Your task to perform on an android device: Open calendar and show me the third week of next month Image 0: 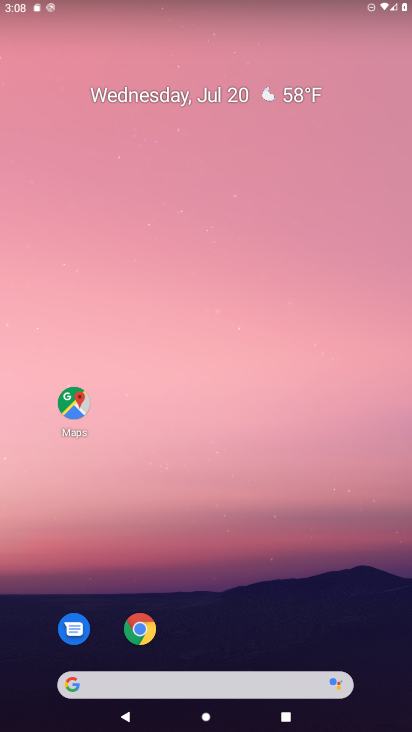
Step 0: drag from (246, 389) to (277, 112)
Your task to perform on an android device: Open calendar and show me the third week of next month Image 1: 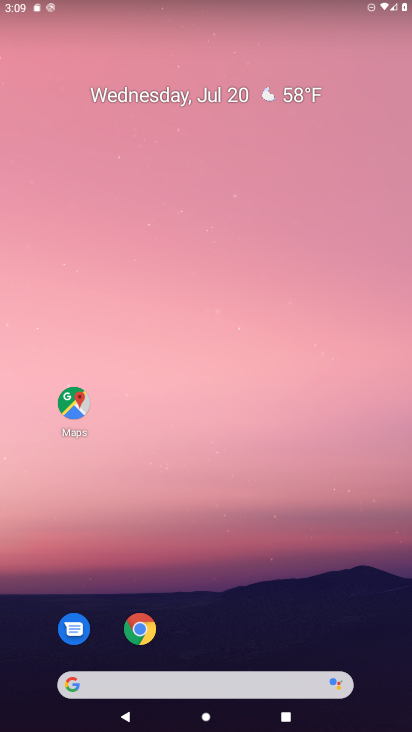
Step 1: drag from (262, 635) to (288, 32)
Your task to perform on an android device: Open calendar and show me the third week of next month Image 2: 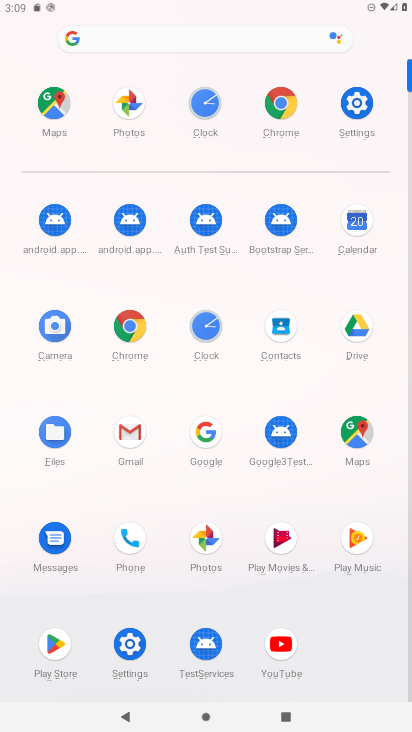
Step 2: click (367, 219)
Your task to perform on an android device: Open calendar and show me the third week of next month Image 3: 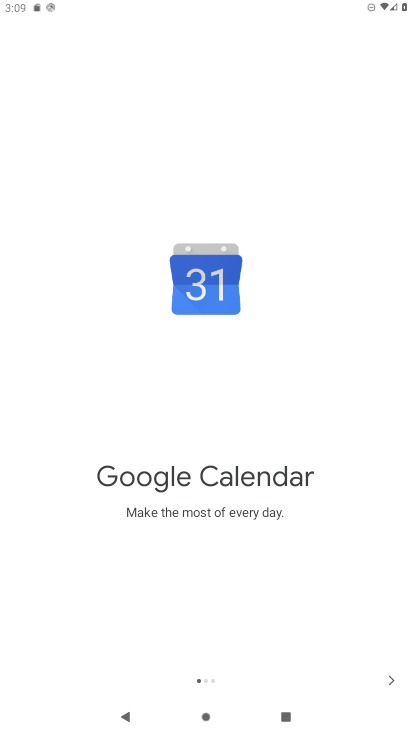
Step 3: click (389, 674)
Your task to perform on an android device: Open calendar and show me the third week of next month Image 4: 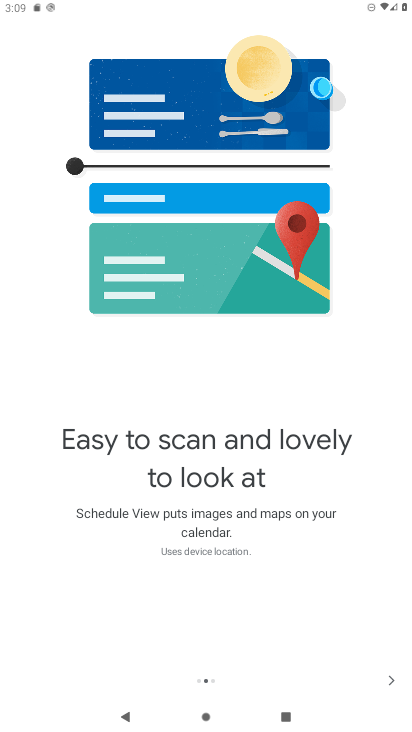
Step 4: click (382, 680)
Your task to perform on an android device: Open calendar and show me the third week of next month Image 5: 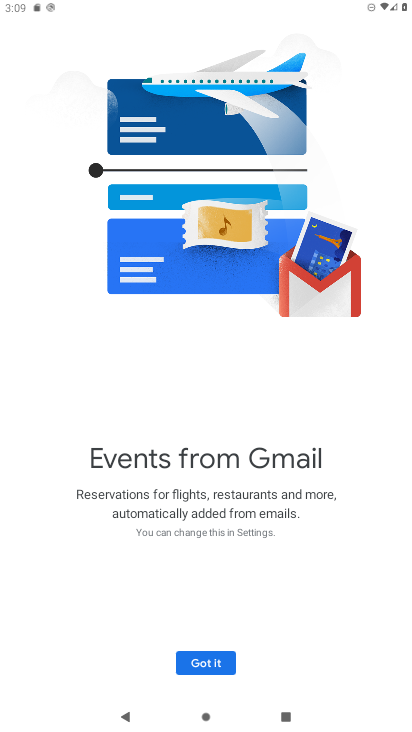
Step 5: click (226, 655)
Your task to perform on an android device: Open calendar and show me the third week of next month Image 6: 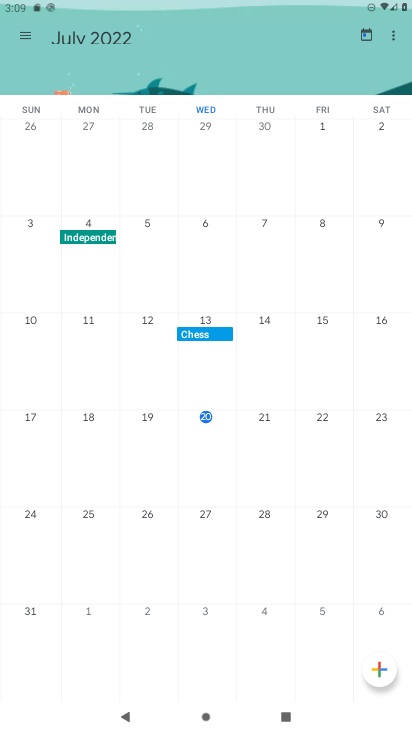
Step 6: drag from (350, 423) to (0, 509)
Your task to perform on an android device: Open calendar and show me the third week of next month Image 7: 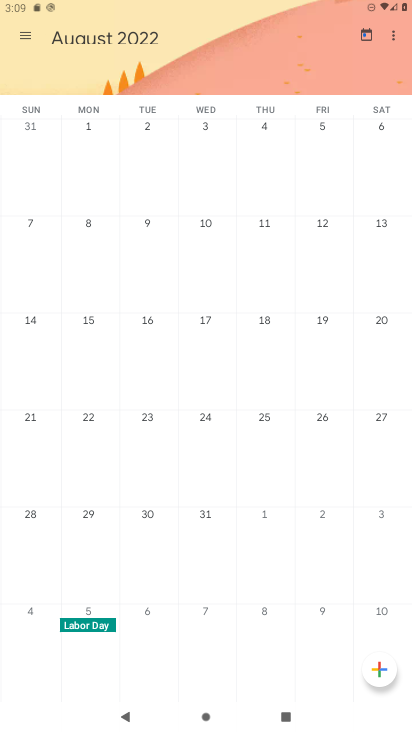
Step 7: click (322, 319)
Your task to perform on an android device: Open calendar and show me the third week of next month Image 8: 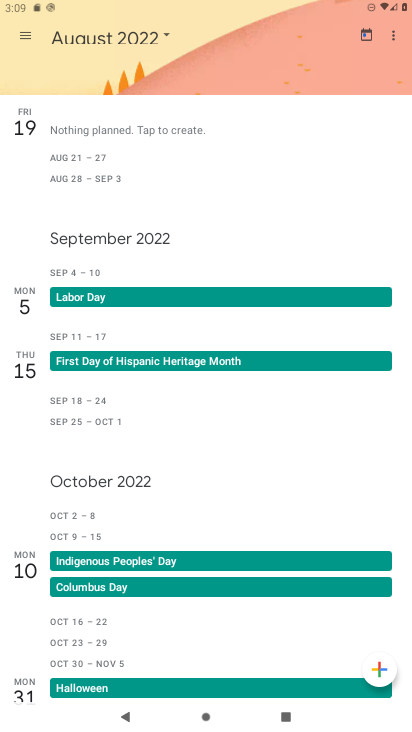
Step 8: task complete